Your task to perform on an android device: Go to network settings Image 0: 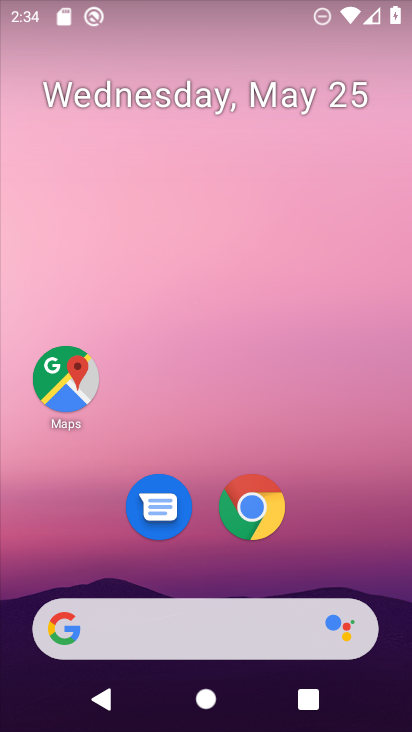
Step 0: drag from (297, 596) to (296, 258)
Your task to perform on an android device: Go to network settings Image 1: 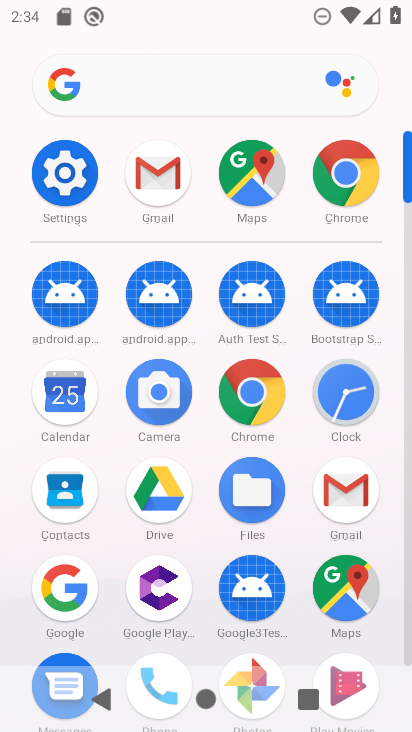
Step 1: click (82, 186)
Your task to perform on an android device: Go to network settings Image 2: 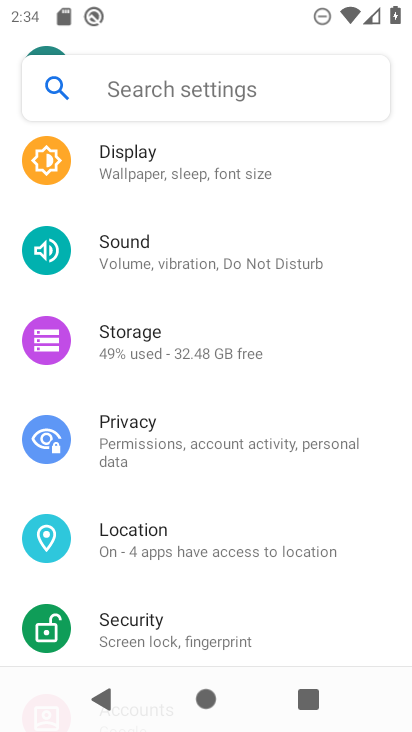
Step 2: drag from (152, 230) to (160, 358)
Your task to perform on an android device: Go to network settings Image 3: 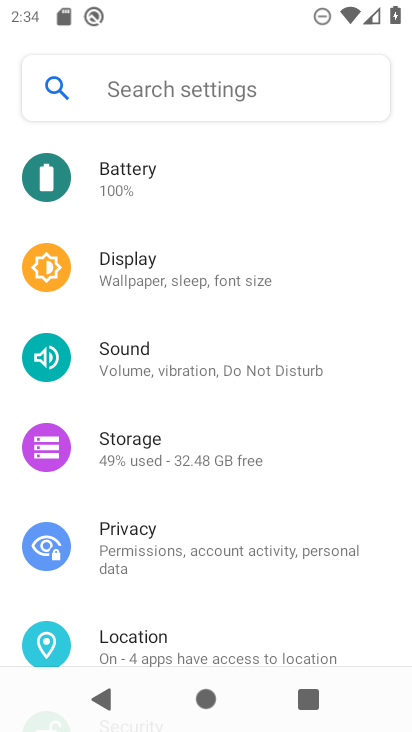
Step 3: drag from (170, 229) to (184, 367)
Your task to perform on an android device: Go to network settings Image 4: 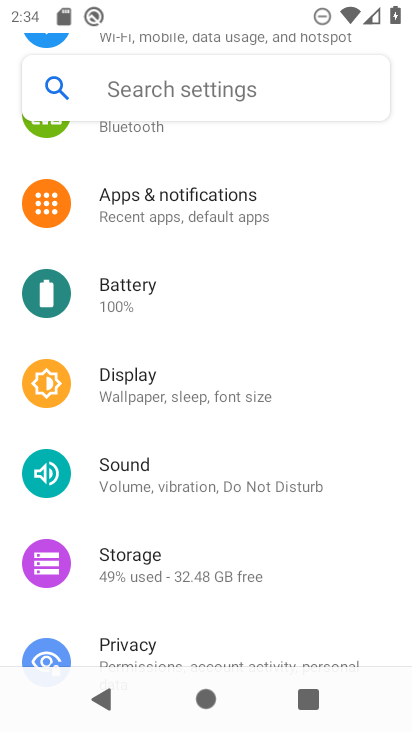
Step 4: drag from (185, 202) to (191, 338)
Your task to perform on an android device: Go to network settings Image 5: 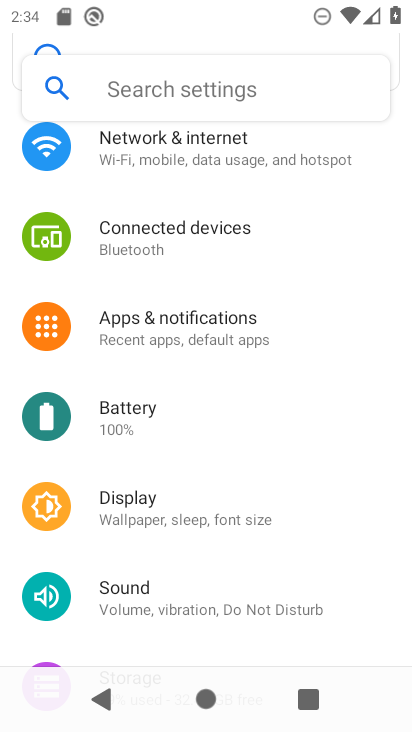
Step 5: drag from (187, 217) to (198, 330)
Your task to perform on an android device: Go to network settings Image 6: 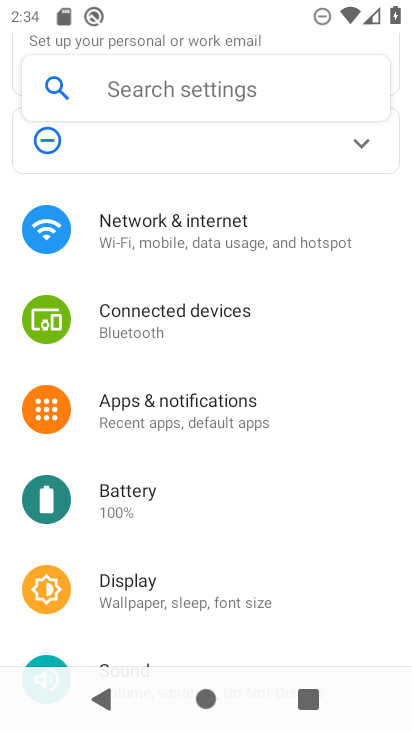
Step 6: drag from (195, 248) to (199, 348)
Your task to perform on an android device: Go to network settings Image 7: 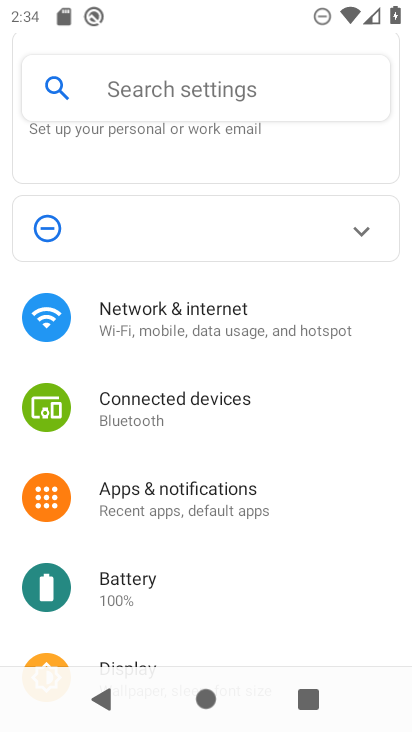
Step 7: click (190, 319)
Your task to perform on an android device: Go to network settings Image 8: 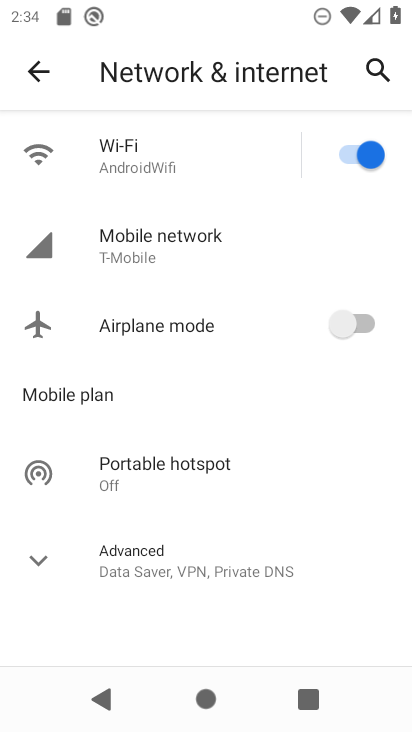
Step 8: click (199, 250)
Your task to perform on an android device: Go to network settings Image 9: 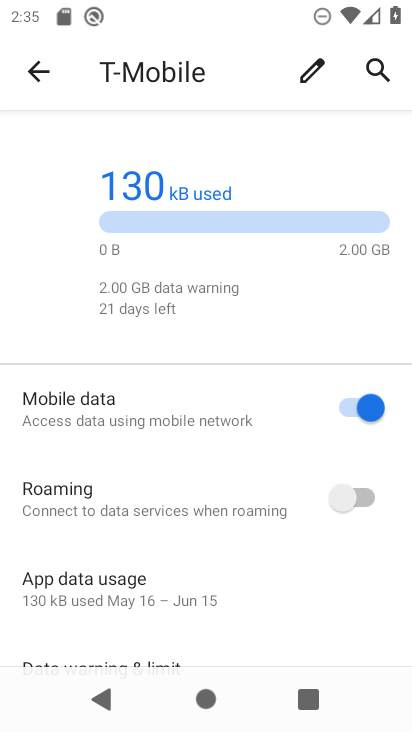
Step 9: task complete